Your task to perform on an android device: Open Reddit.com Image 0: 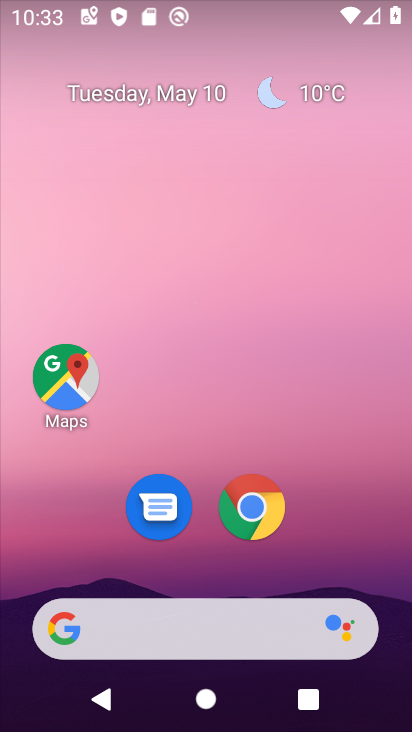
Step 0: click (262, 529)
Your task to perform on an android device: Open Reddit.com Image 1: 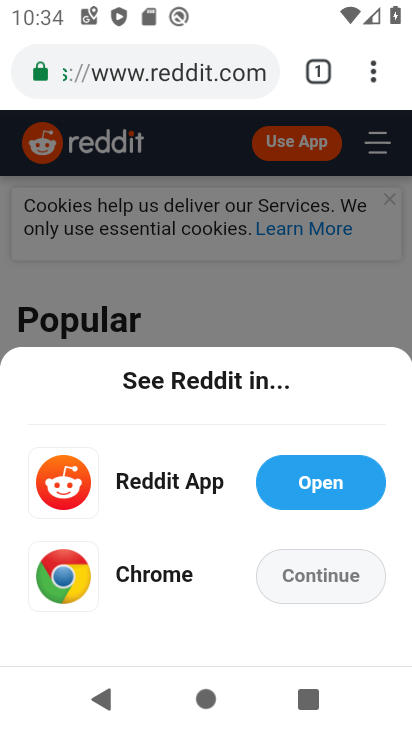
Step 1: task complete